Your task to perform on an android device: change notification settings in the gmail app Image 0: 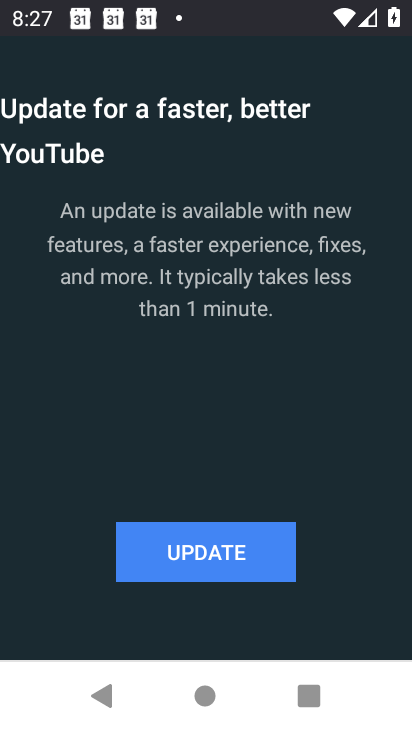
Step 0: press home button
Your task to perform on an android device: change notification settings in the gmail app Image 1: 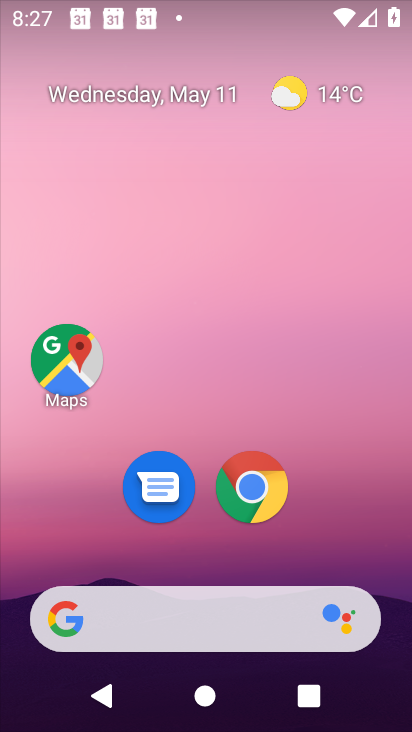
Step 1: drag from (225, 716) to (240, 250)
Your task to perform on an android device: change notification settings in the gmail app Image 2: 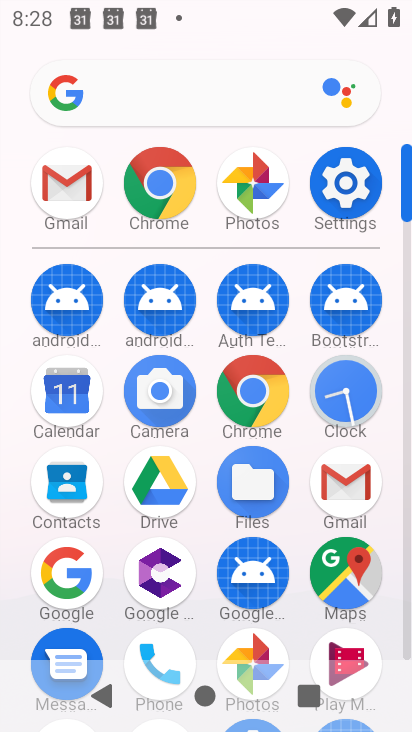
Step 2: click (353, 492)
Your task to perform on an android device: change notification settings in the gmail app Image 3: 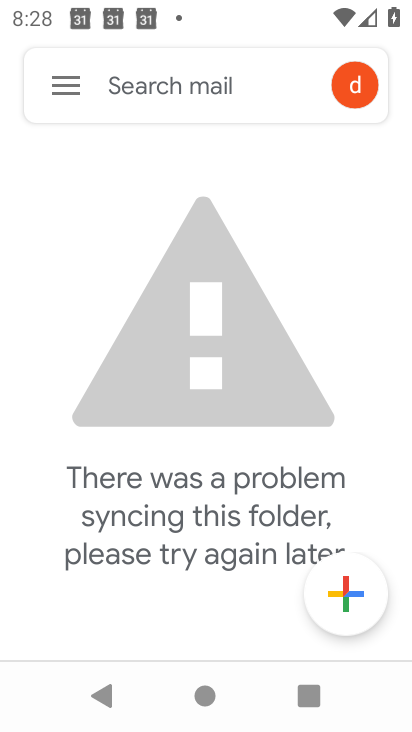
Step 3: click (64, 83)
Your task to perform on an android device: change notification settings in the gmail app Image 4: 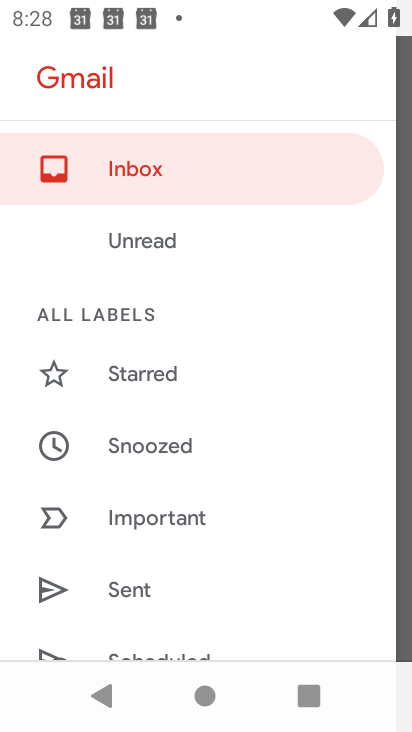
Step 4: drag from (132, 626) to (136, 193)
Your task to perform on an android device: change notification settings in the gmail app Image 5: 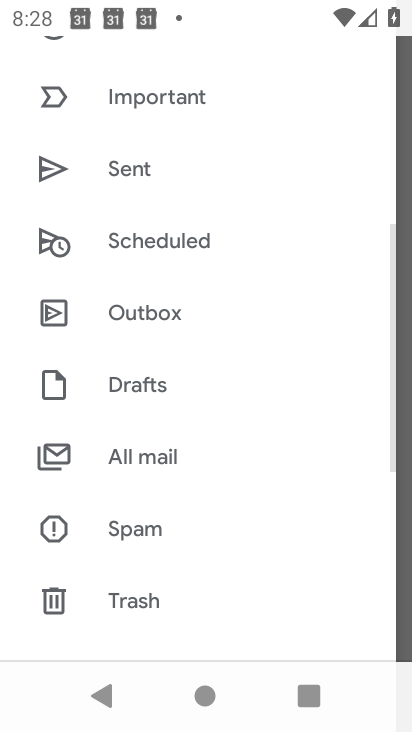
Step 5: drag from (137, 637) to (143, 243)
Your task to perform on an android device: change notification settings in the gmail app Image 6: 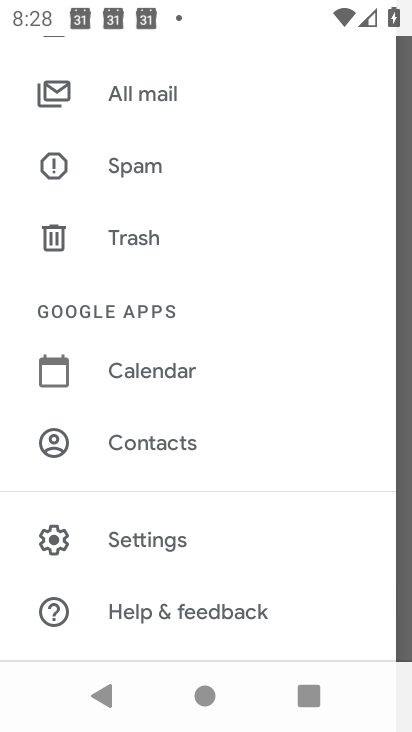
Step 6: click (140, 540)
Your task to perform on an android device: change notification settings in the gmail app Image 7: 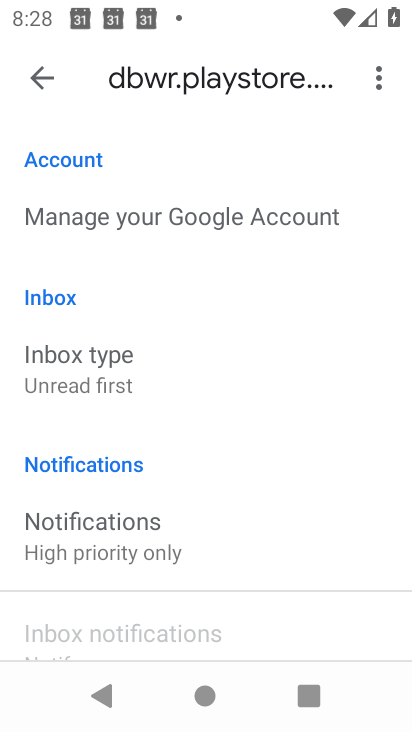
Step 7: click (92, 546)
Your task to perform on an android device: change notification settings in the gmail app Image 8: 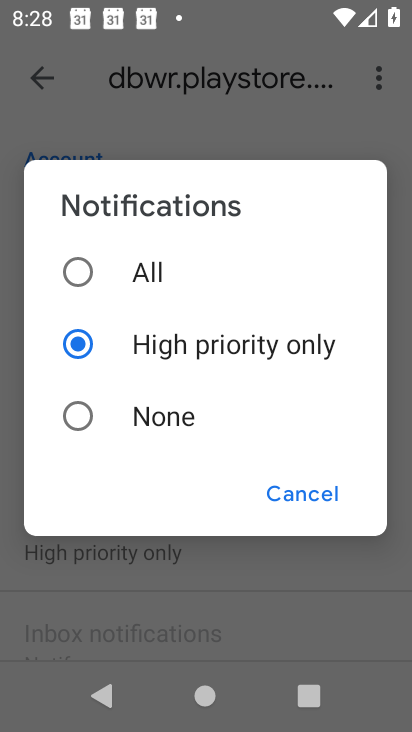
Step 8: click (74, 273)
Your task to perform on an android device: change notification settings in the gmail app Image 9: 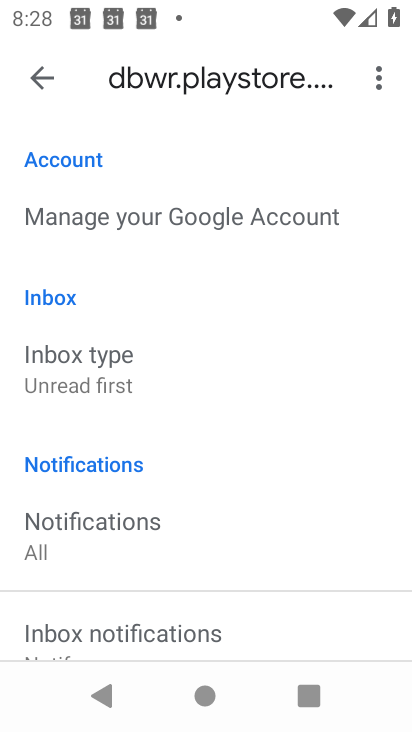
Step 9: task complete